Your task to perform on an android device: add a label to a message in the gmail app Image 0: 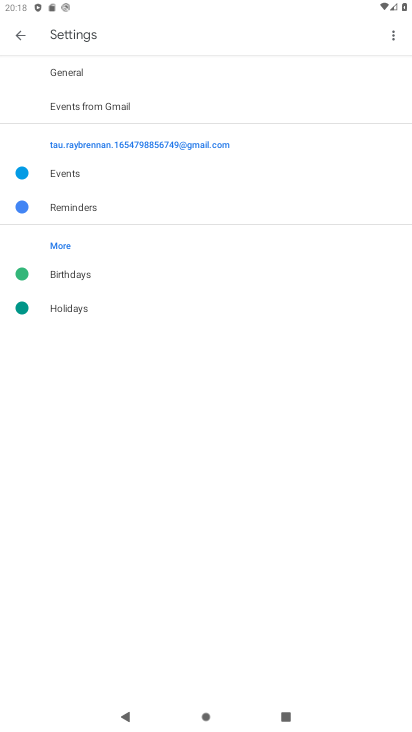
Step 0: press home button
Your task to perform on an android device: add a label to a message in the gmail app Image 1: 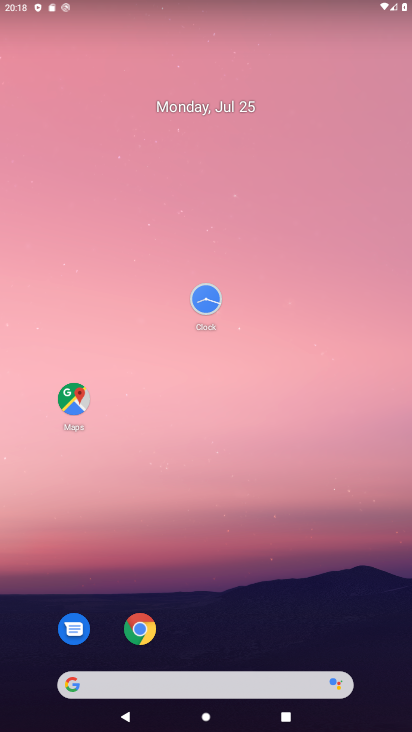
Step 1: drag from (195, 629) to (199, 187)
Your task to perform on an android device: add a label to a message in the gmail app Image 2: 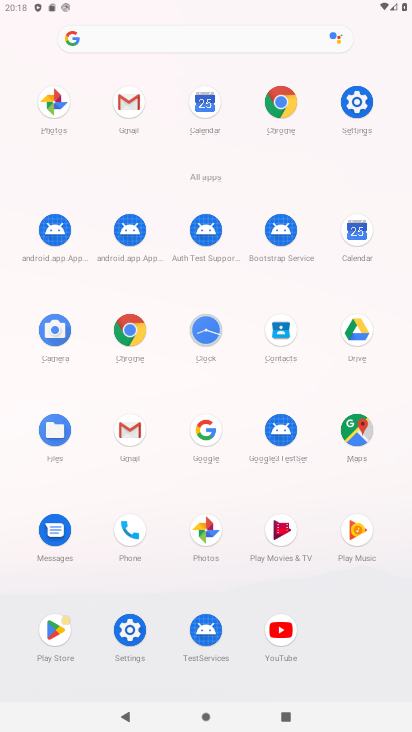
Step 2: click (130, 445)
Your task to perform on an android device: add a label to a message in the gmail app Image 3: 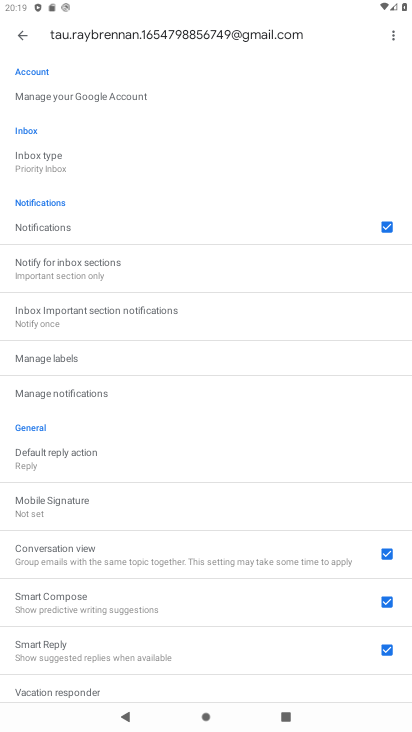
Step 3: click (23, 38)
Your task to perform on an android device: add a label to a message in the gmail app Image 4: 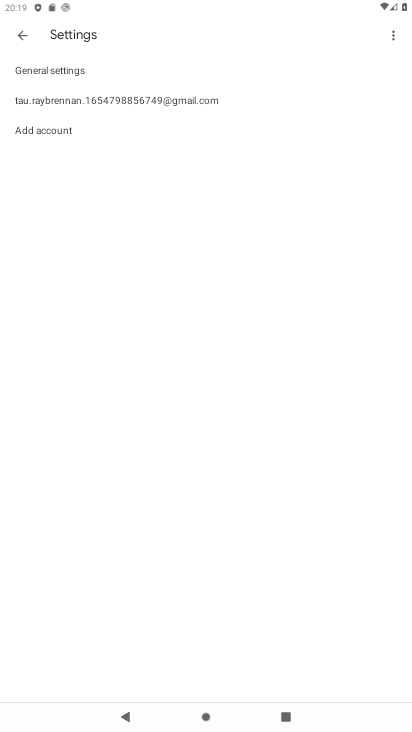
Step 4: click (16, 27)
Your task to perform on an android device: add a label to a message in the gmail app Image 5: 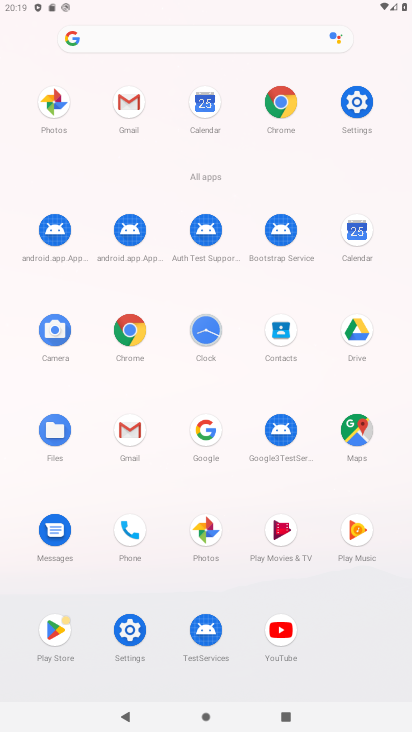
Step 5: click (124, 436)
Your task to perform on an android device: add a label to a message in the gmail app Image 6: 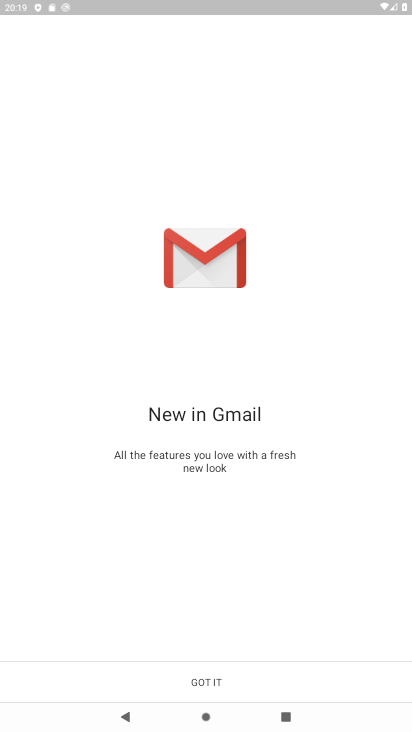
Step 6: click (247, 682)
Your task to perform on an android device: add a label to a message in the gmail app Image 7: 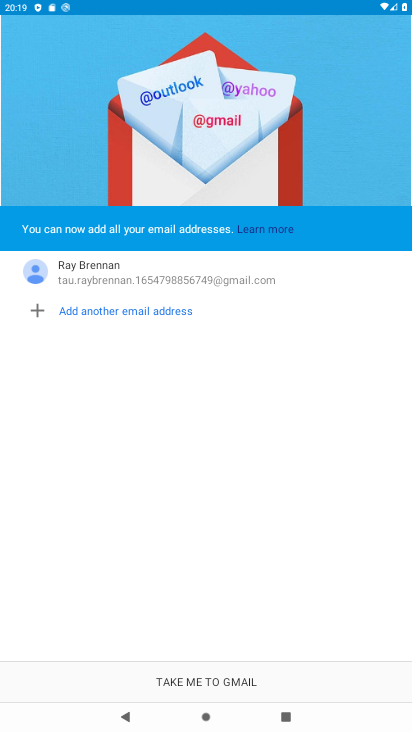
Step 7: click (224, 680)
Your task to perform on an android device: add a label to a message in the gmail app Image 8: 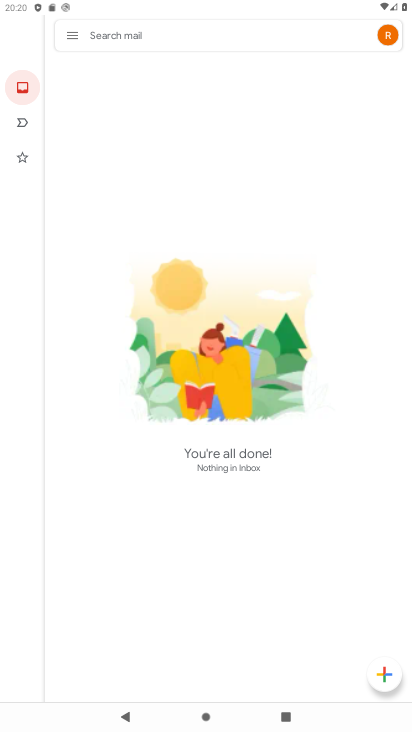
Step 8: task complete